Your task to perform on an android device: toggle javascript in the chrome app Image 0: 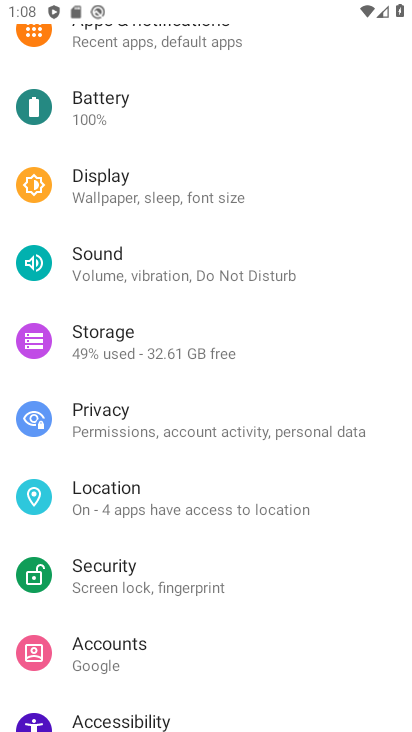
Step 0: press home button
Your task to perform on an android device: toggle javascript in the chrome app Image 1: 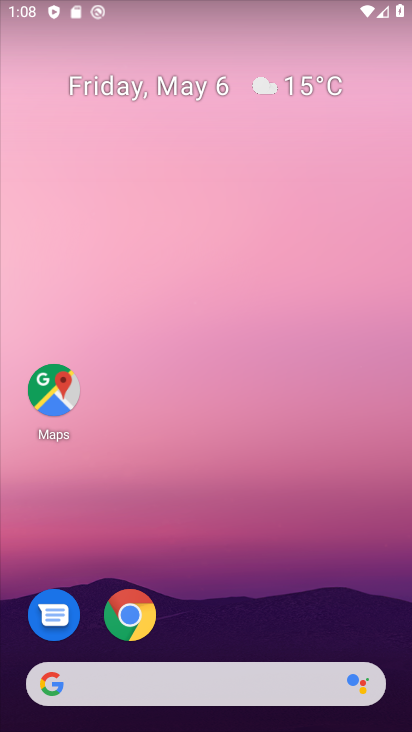
Step 1: drag from (210, 559) to (298, 29)
Your task to perform on an android device: toggle javascript in the chrome app Image 2: 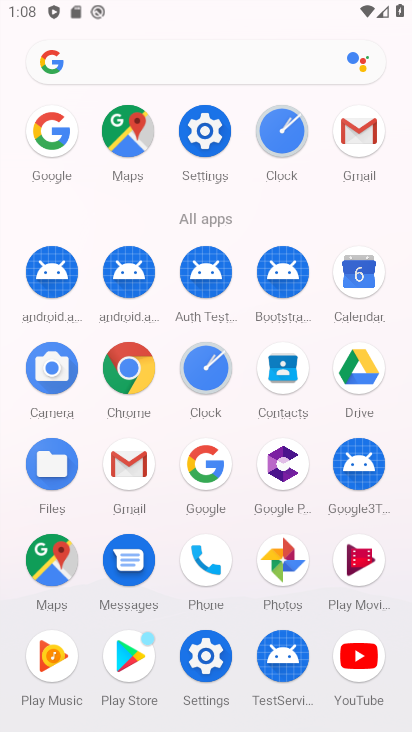
Step 2: click (132, 366)
Your task to perform on an android device: toggle javascript in the chrome app Image 3: 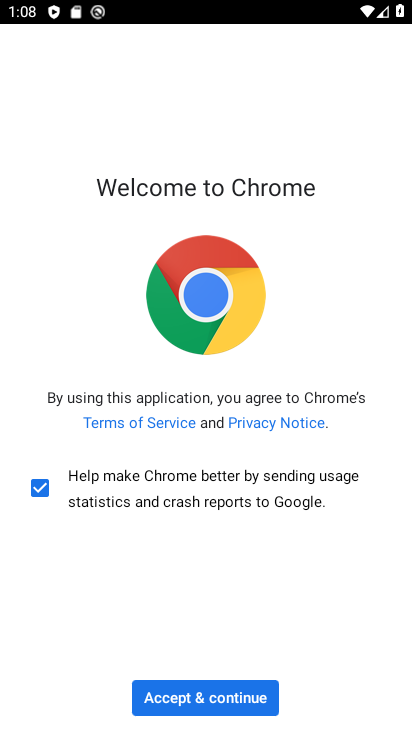
Step 3: click (246, 696)
Your task to perform on an android device: toggle javascript in the chrome app Image 4: 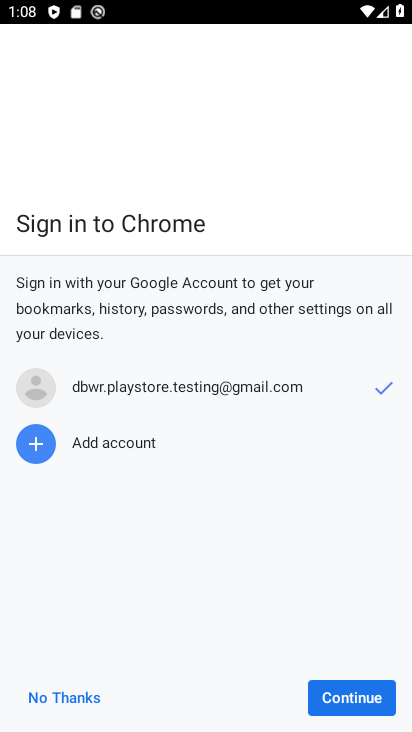
Step 4: click (325, 693)
Your task to perform on an android device: toggle javascript in the chrome app Image 5: 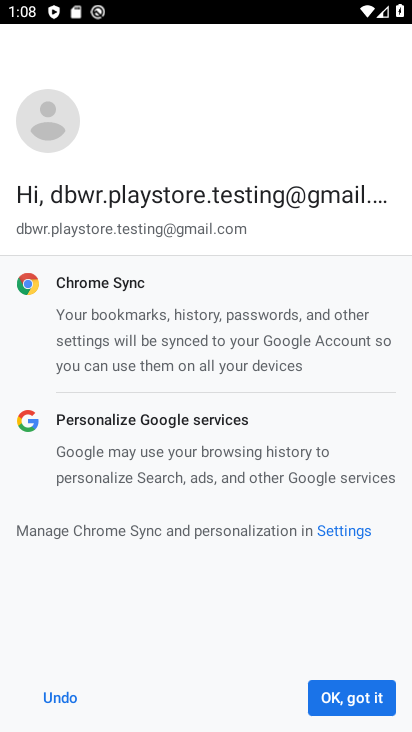
Step 5: click (327, 698)
Your task to perform on an android device: toggle javascript in the chrome app Image 6: 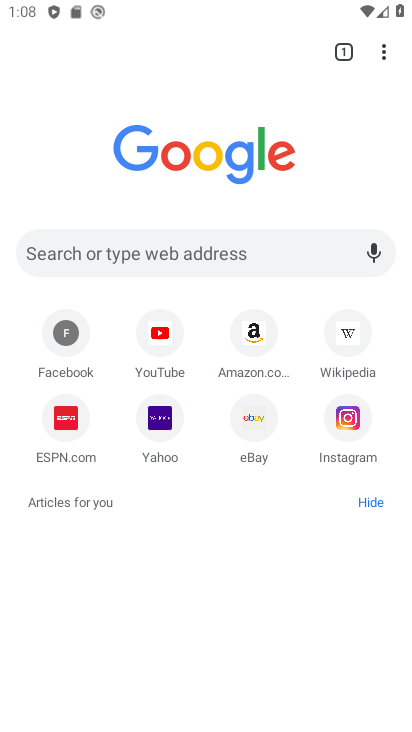
Step 6: drag from (382, 53) to (278, 441)
Your task to perform on an android device: toggle javascript in the chrome app Image 7: 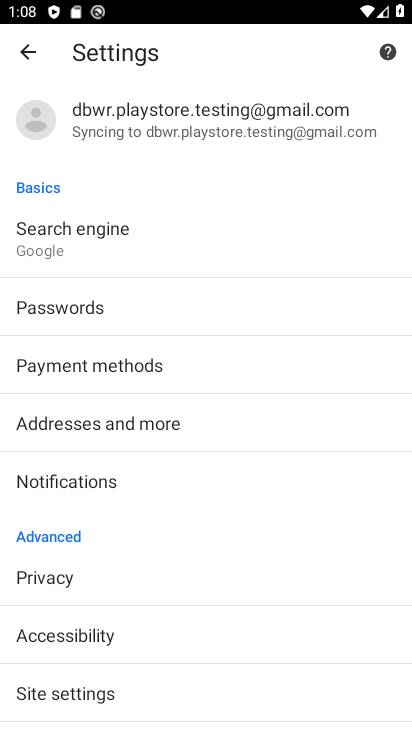
Step 7: click (168, 686)
Your task to perform on an android device: toggle javascript in the chrome app Image 8: 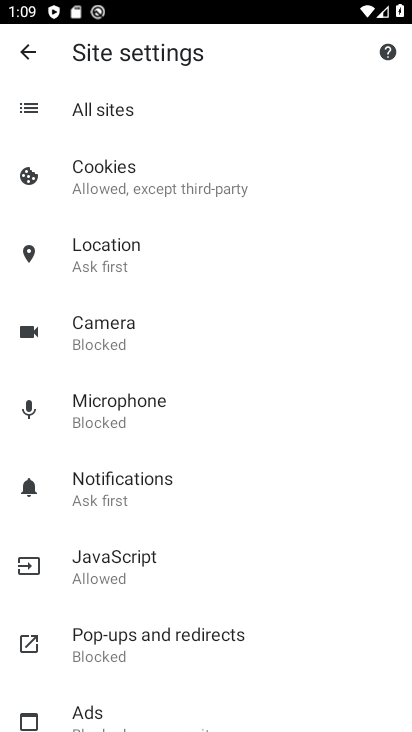
Step 8: click (225, 553)
Your task to perform on an android device: toggle javascript in the chrome app Image 9: 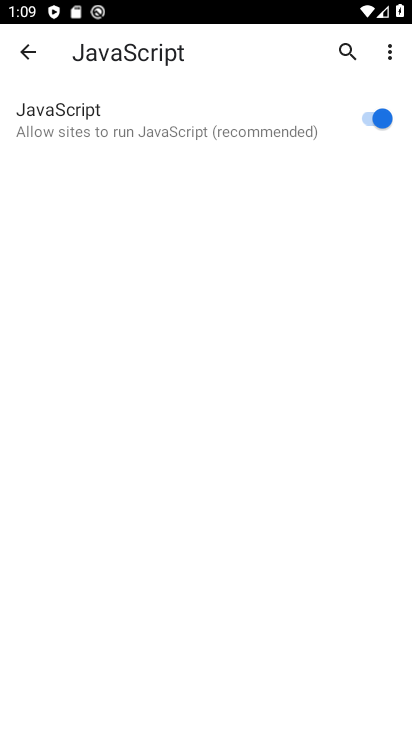
Step 9: click (366, 108)
Your task to perform on an android device: toggle javascript in the chrome app Image 10: 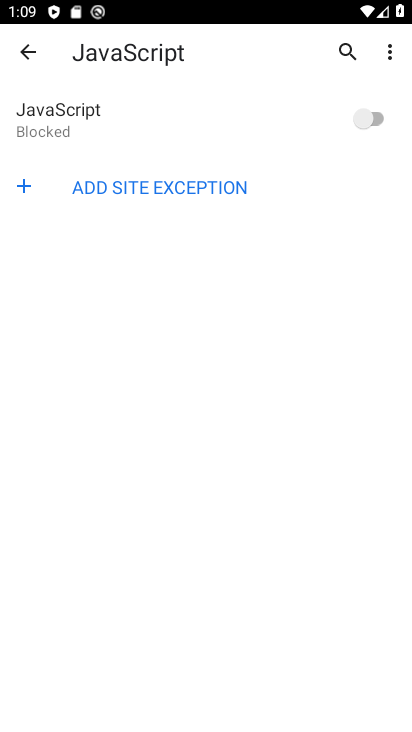
Step 10: task complete